Your task to perform on an android device: all mails in gmail Image 0: 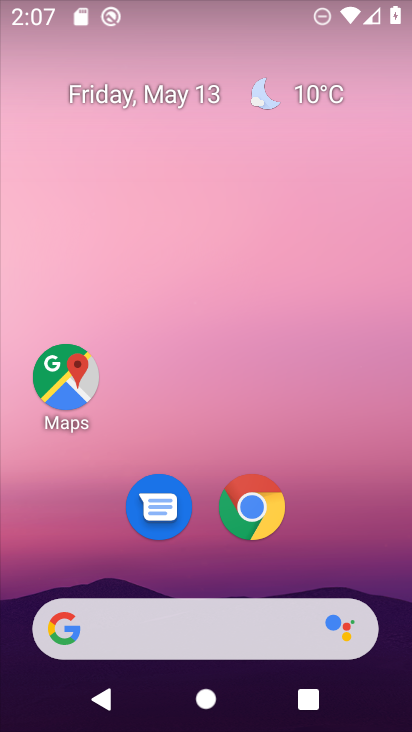
Step 0: drag from (335, 552) to (348, 93)
Your task to perform on an android device: all mails in gmail Image 1: 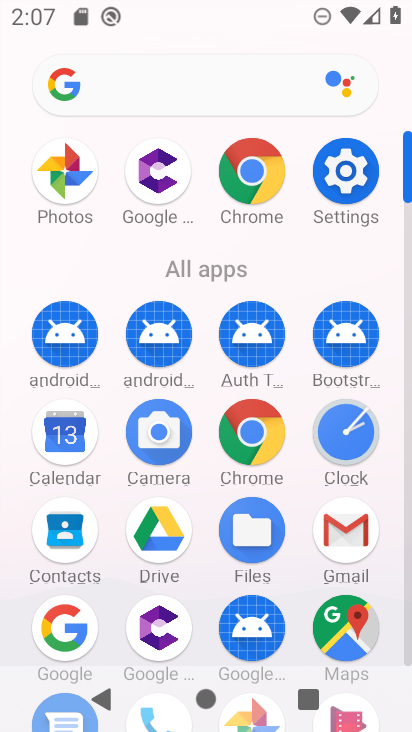
Step 1: click (346, 546)
Your task to perform on an android device: all mails in gmail Image 2: 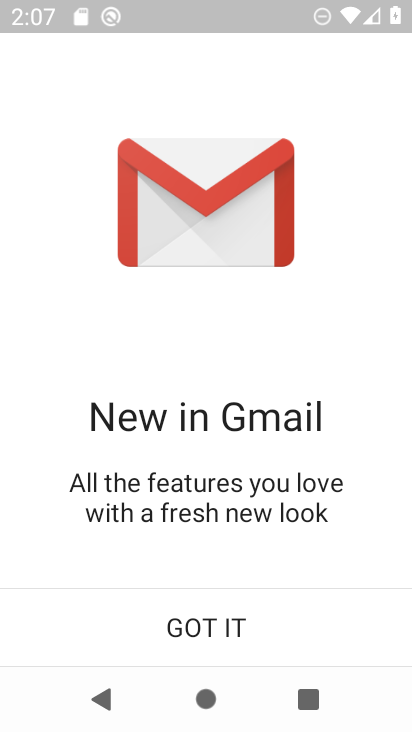
Step 2: click (233, 612)
Your task to perform on an android device: all mails in gmail Image 3: 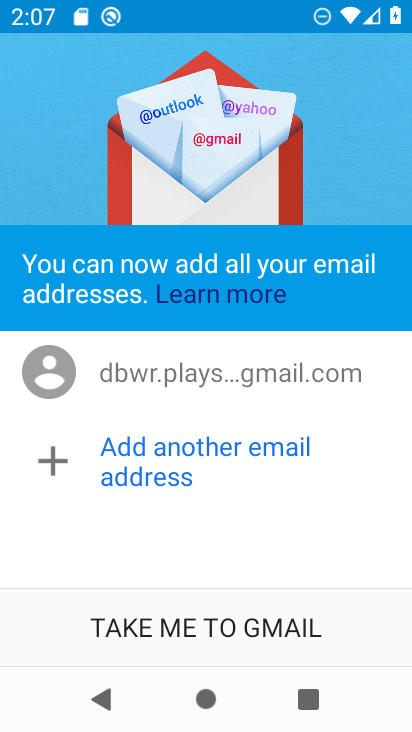
Step 3: click (202, 617)
Your task to perform on an android device: all mails in gmail Image 4: 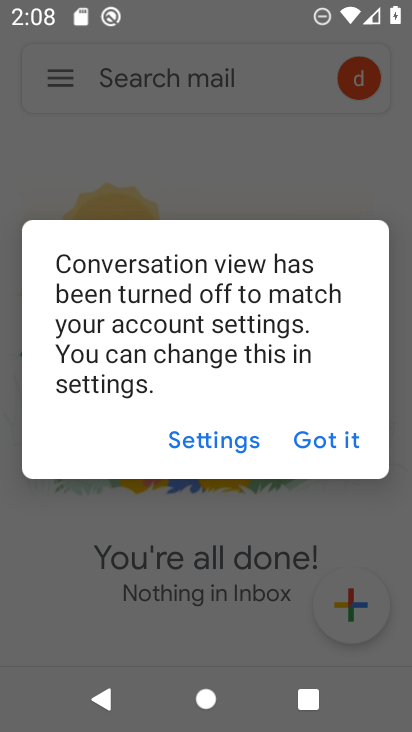
Step 4: click (336, 431)
Your task to perform on an android device: all mails in gmail Image 5: 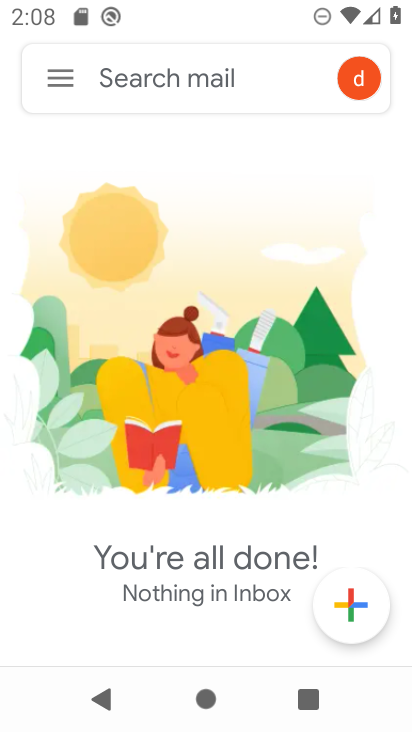
Step 5: click (60, 91)
Your task to perform on an android device: all mails in gmail Image 6: 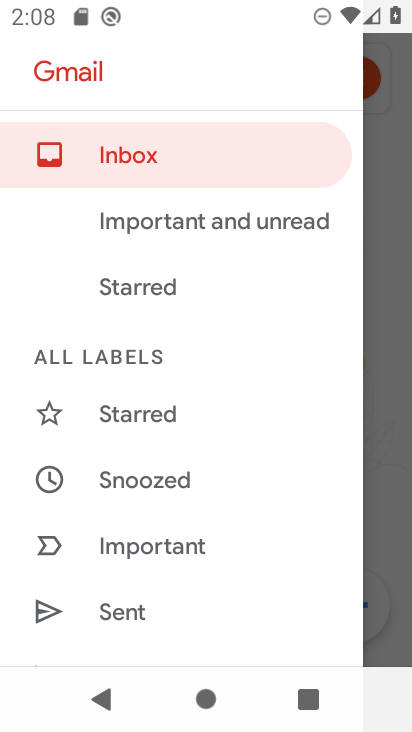
Step 6: drag from (180, 552) to (212, 196)
Your task to perform on an android device: all mails in gmail Image 7: 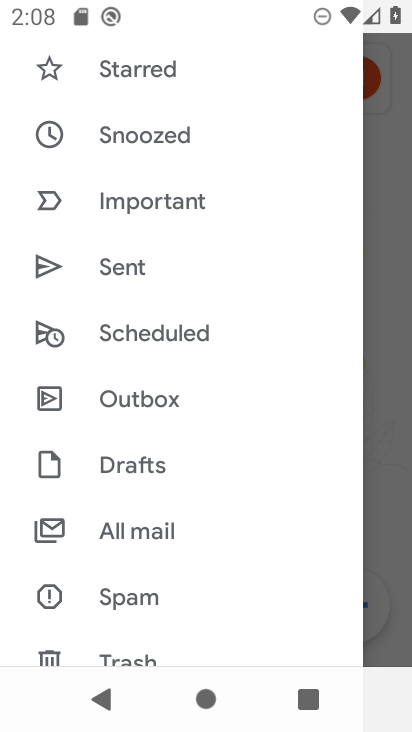
Step 7: click (200, 534)
Your task to perform on an android device: all mails in gmail Image 8: 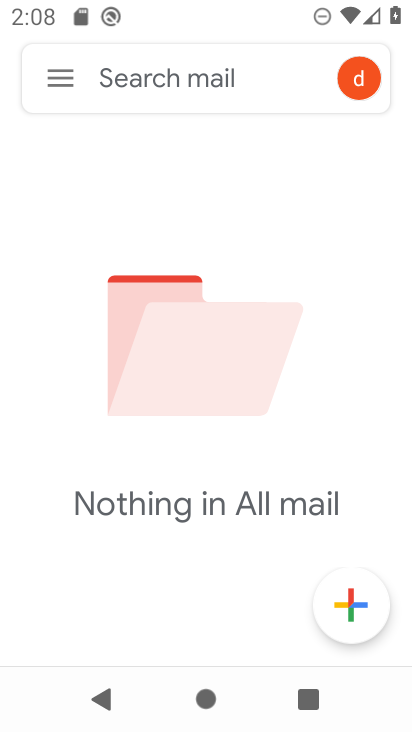
Step 8: task complete